Your task to perform on an android device: toggle sleep mode Image 0: 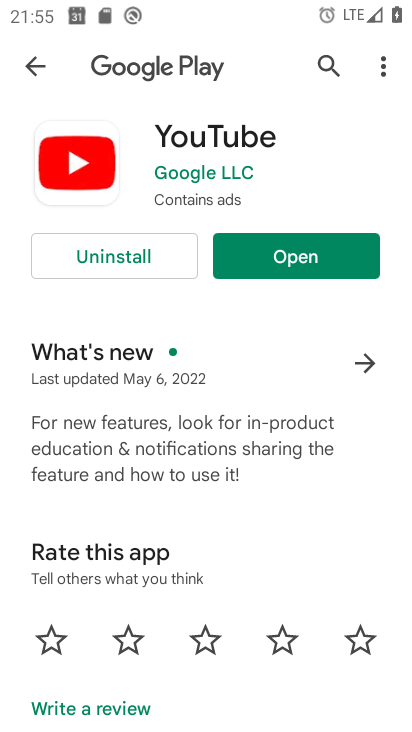
Step 0: press home button
Your task to perform on an android device: toggle sleep mode Image 1: 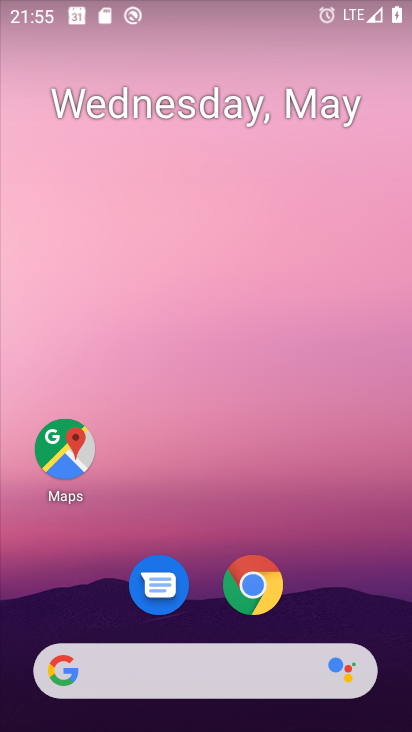
Step 1: drag from (300, 452) to (275, 49)
Your task to perform on an android device: toggle sleep mode Image 2: 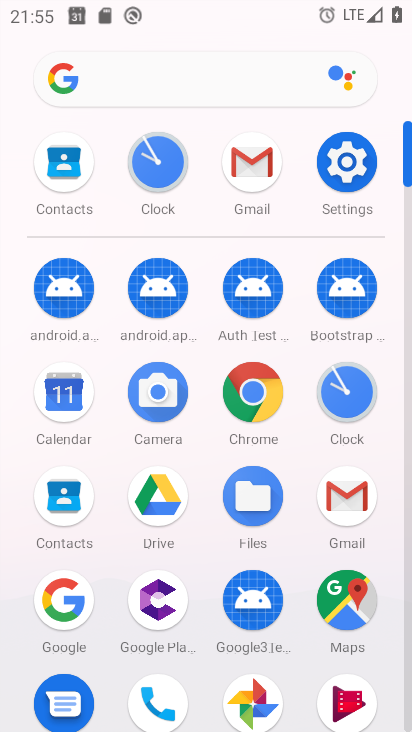
Step 2: click (352, 177)
Your task to perform on an android device: toggle sleep mode Image 3: 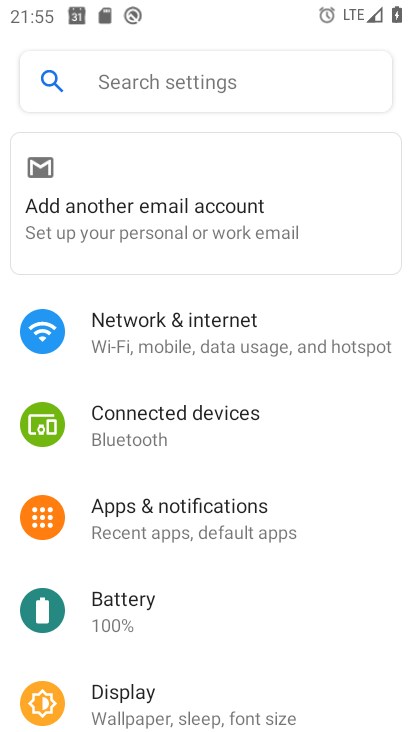
Step 3: drag from (196, 557) to (226, 235)
Your task to perform on an android device: toggle sleep mode Image 4: 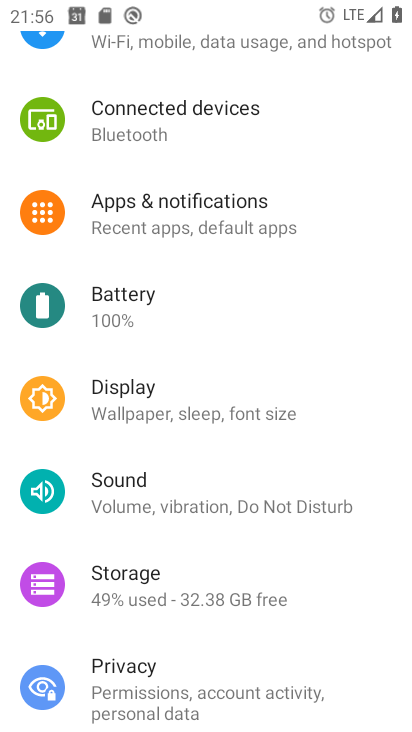
Step 4: click (208, 410)
Your task to perform on an android device: toggle sleep mode Image 5: 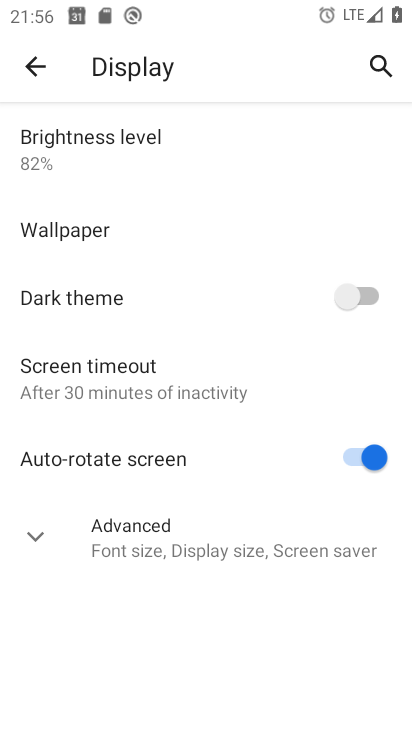
Step 5: click (33, 531)
Your task to perform on an android device: toggle sleep mode Image 6: 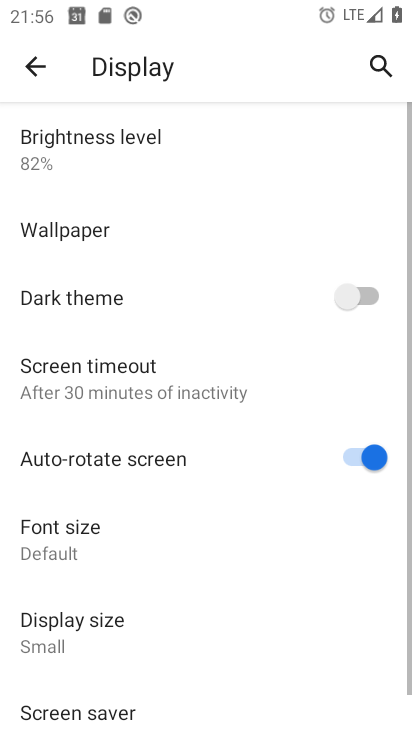
Step 6: task complete